Your task to perform on an android device: toggle javascript in the chrome app Image 0: 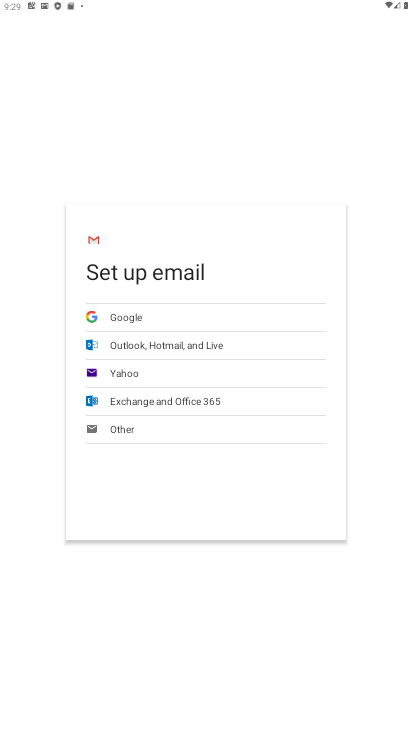
Step 0: press home button
Your task to perform on an android device: toggle javascript in the chrome app Image 1: 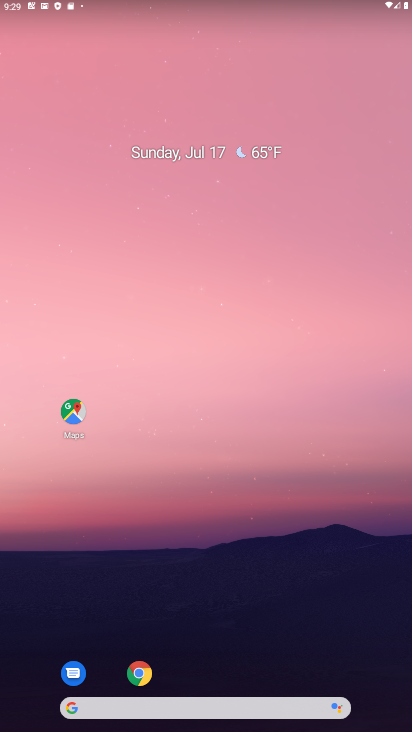
Step 1: click (138, 664)
Your task to perform on an android device: toggle javascript in the chrome app Image 2: 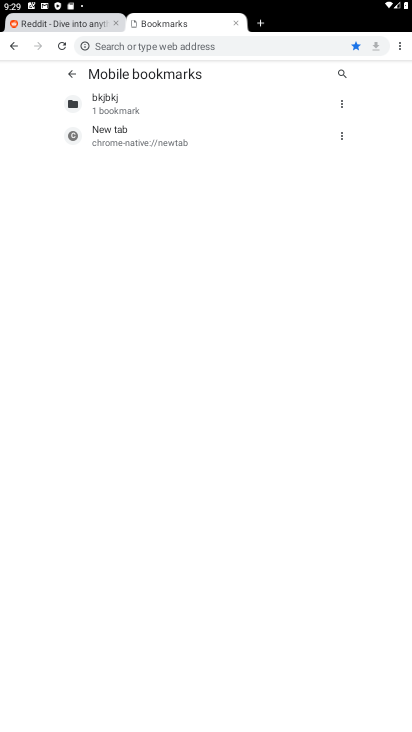
Step 2: click (403, 44)
Your task to perform on an android device: toggle javascript in the chrome app Image 3: 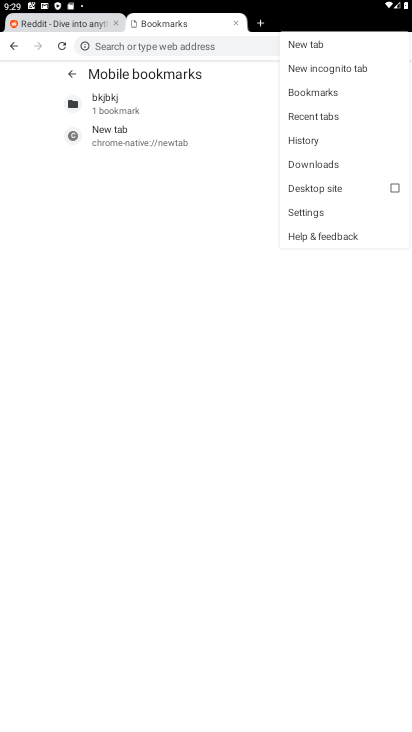
Step 3: click (313, 212)
Your task to perform on an android device: toggle javascript in the chrome app Image 4: 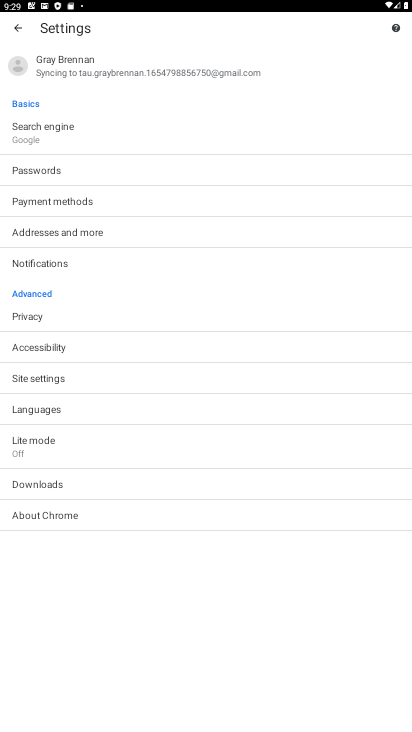
Step 4: click (47, 372)
Your task to perform on an android device: toggle javascript in the chrome app Image 5: 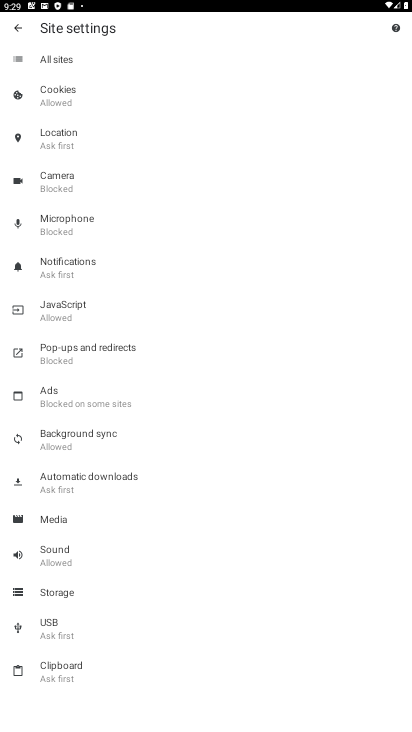
Step 5: click (76, 306)
Your task to perform on an android device: toggle javascript in the chrome app Image 6: 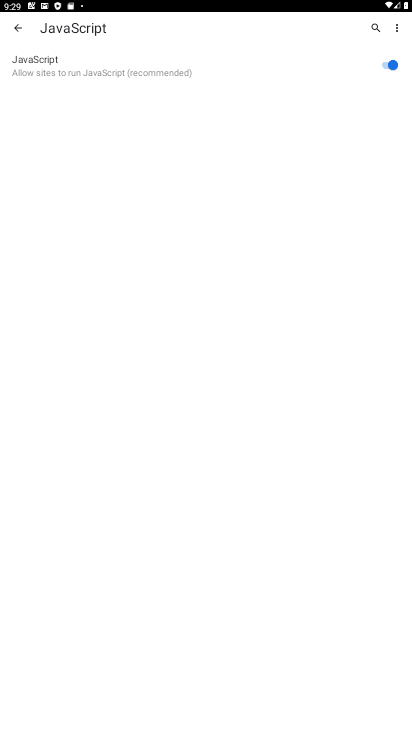
Step 6: click (394, 61)
Your task to perform on an android device: toggle javascript in the chrome app Image 7: 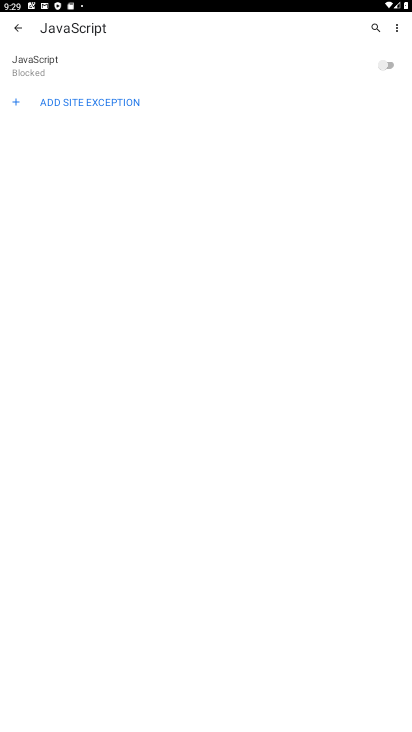
Step 7: task complete